Your task to perform on an android device: check data usage Image 0: 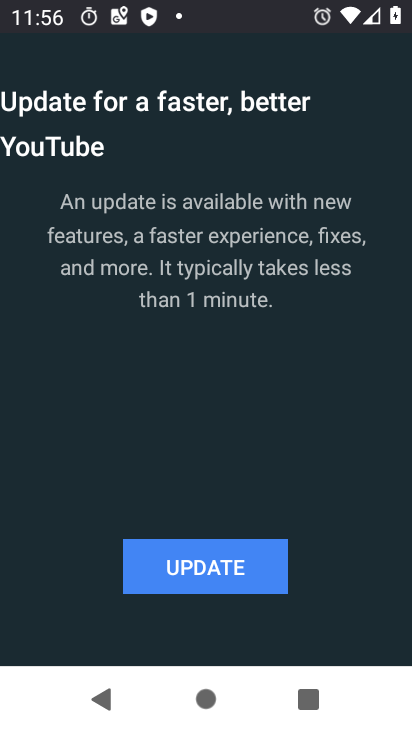
Step 0: press home button
Your task to perform on an android device: check data usage Image 1: 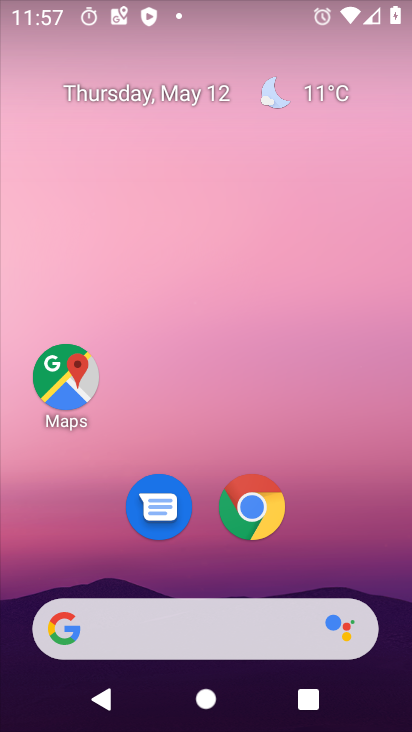
Step 1: drag from (222, 578) to (277, 14)
Your task to perform on an android device: check data usage Image 2: 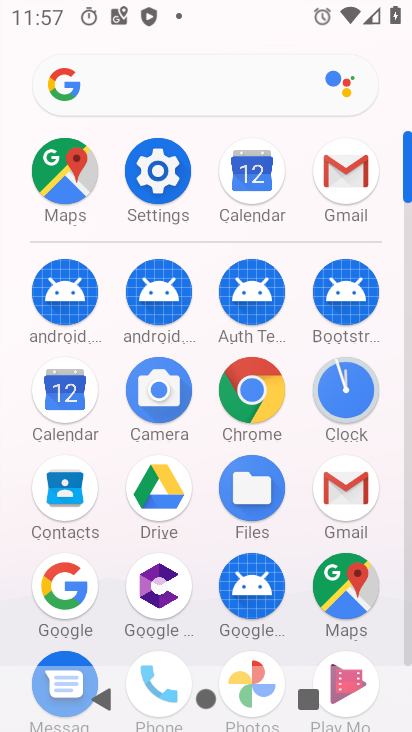
Step 2: click (169, 176)
Your task to perform on an android device: check data usage Image 3: 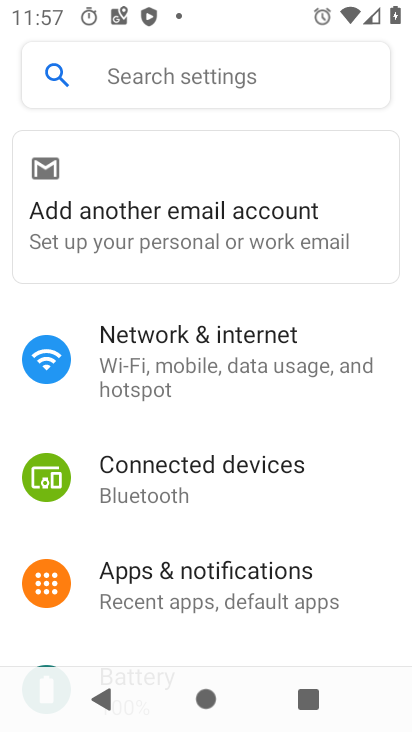
Step 3: drag from (208, 585) to (223, 637)
Your task to perform on an android device: check data usage Image 4: 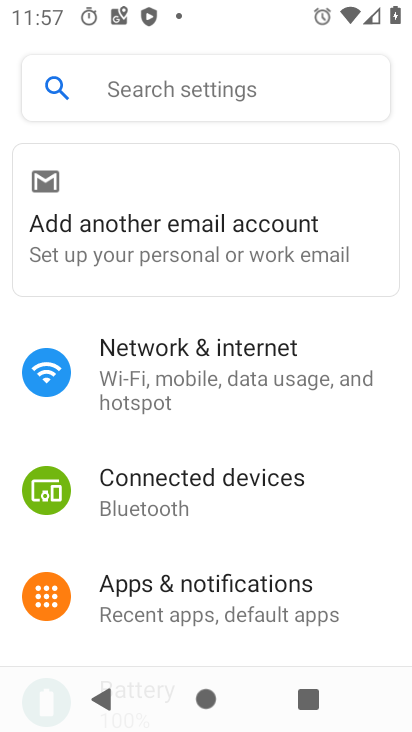
Step 4: click (198, 392)
Your task to perform on an android device: check data usage Image 5: 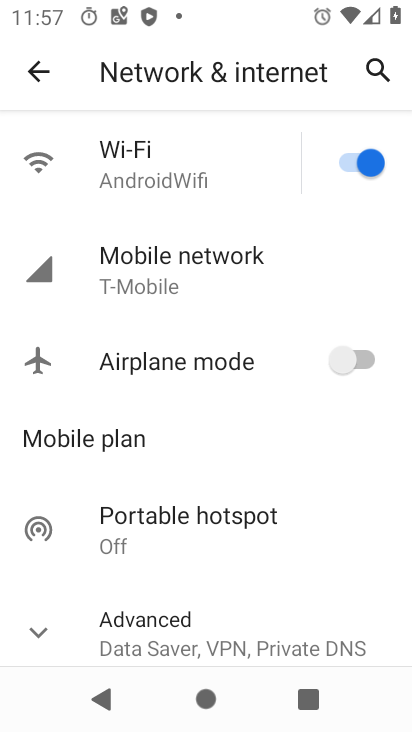
Step 5: click (196, 280)
Your task to perform on an android device: check data usage Image 6: 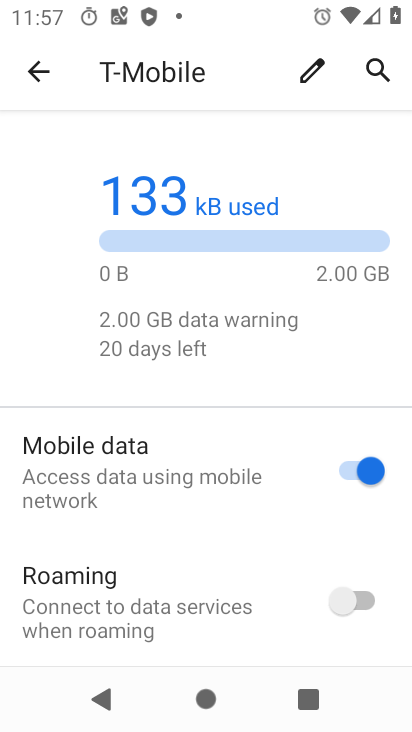
Step 6: drag from (176, 560) to (240, 148)
Your task to perform on an android device: check data usage Image 7: 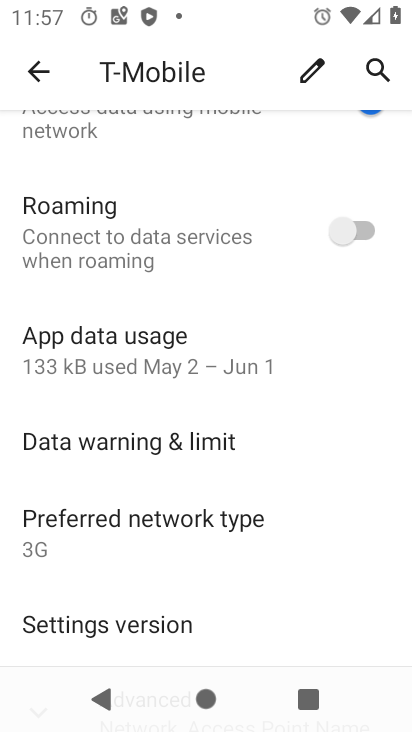
Step 7: click (203, 364)
Your task to perform on an android device: check data usage Image 8: 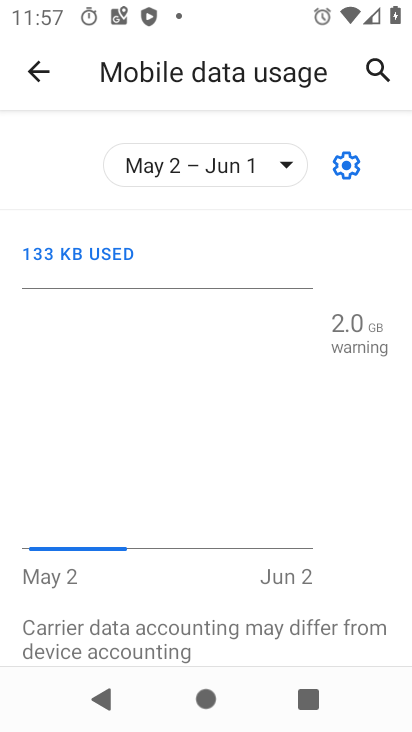
Step 8: task complete